Your task to perform on an android device: open a new tab in the chrome app Image 0: 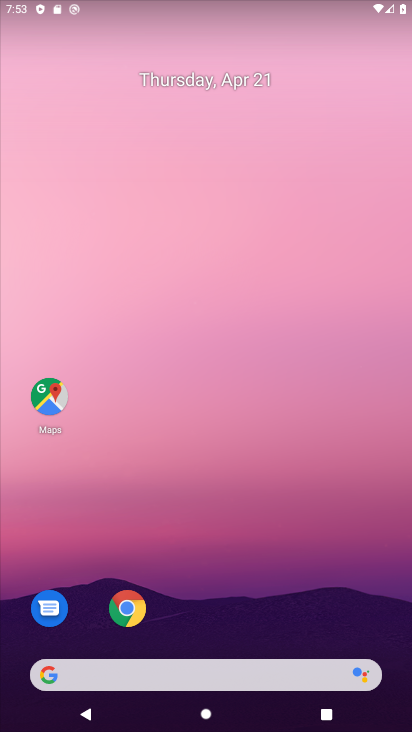
Step 0: click (112, 623)
Your task to perform on an android device: open a new tab in the chrome app Image 1: 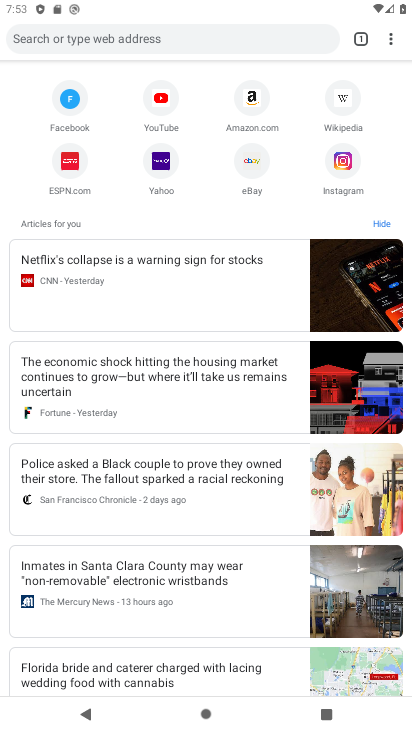
Step 1: click (393, 39)
Your task to perform on an android device: open a new tab in the chrome app Image 2: 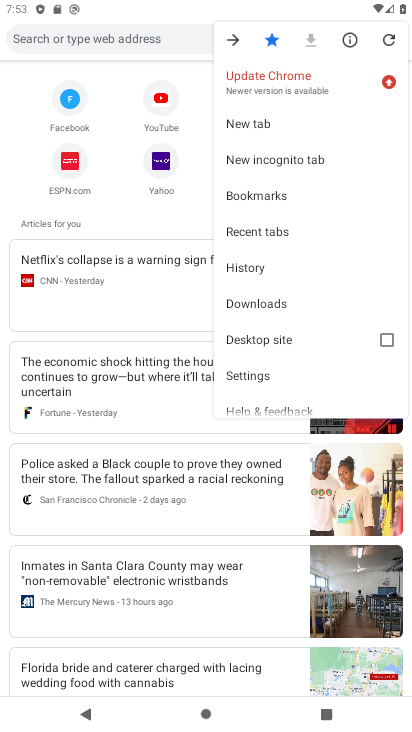
Step 2: click (252, 121)
Your task to perform on an android device: open a new tab in the chrome app Image 3: 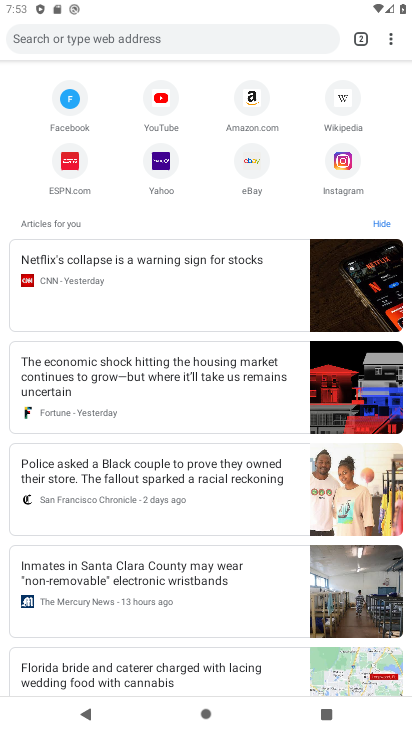
Step 3: task complete